Your task to perform on an android device: Is it going to rain today? Image 0: 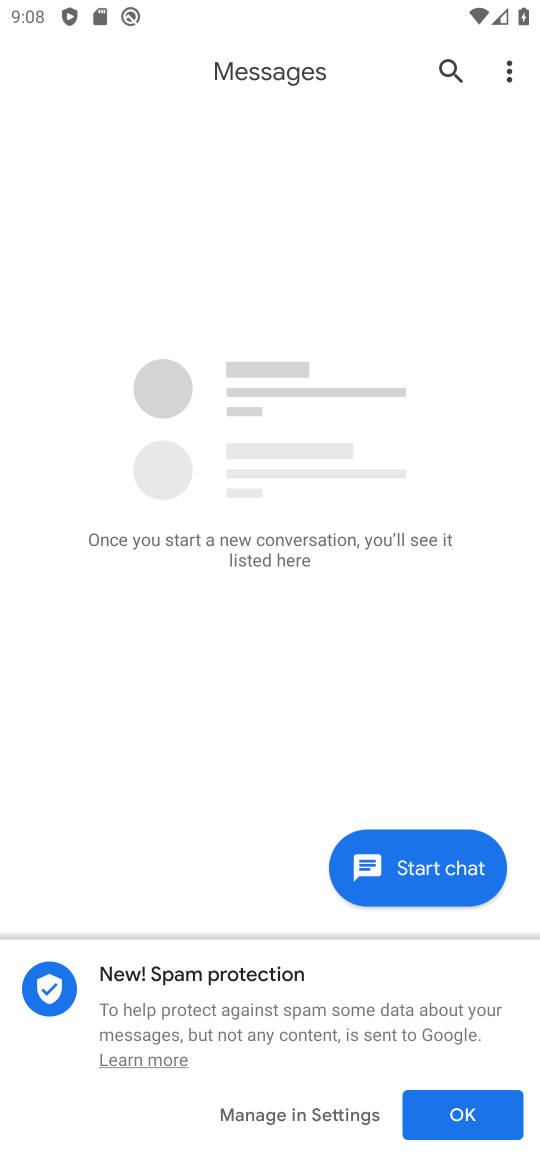
Step 0: press home button
Your task to perform on an android device: Is it going to rain today? Image 1: 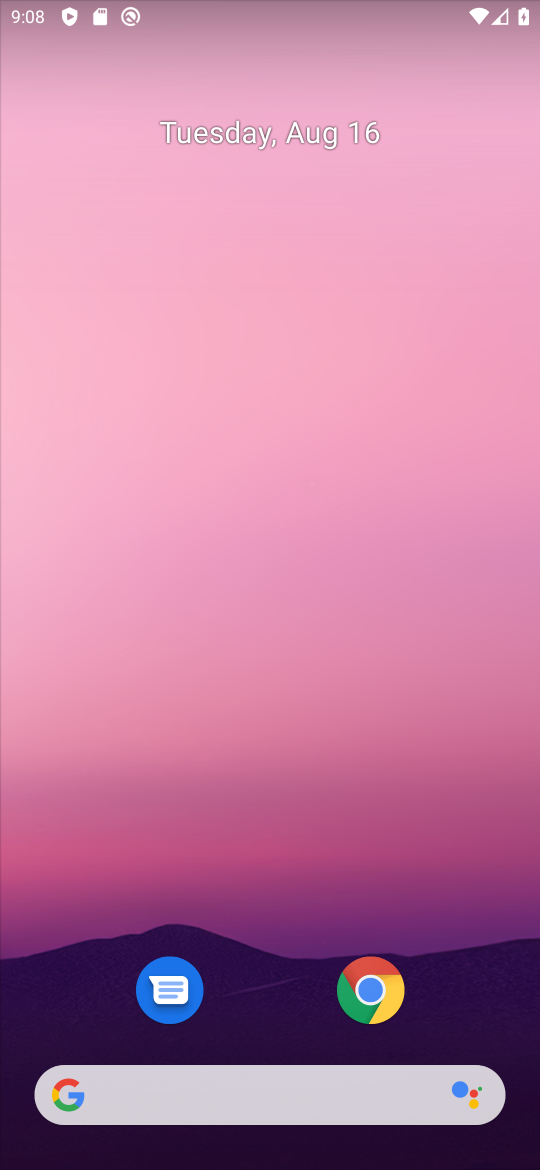
Step 1: click (255, 1094)
Your task to perform on an android device: Is it going to rain today? Image 2: 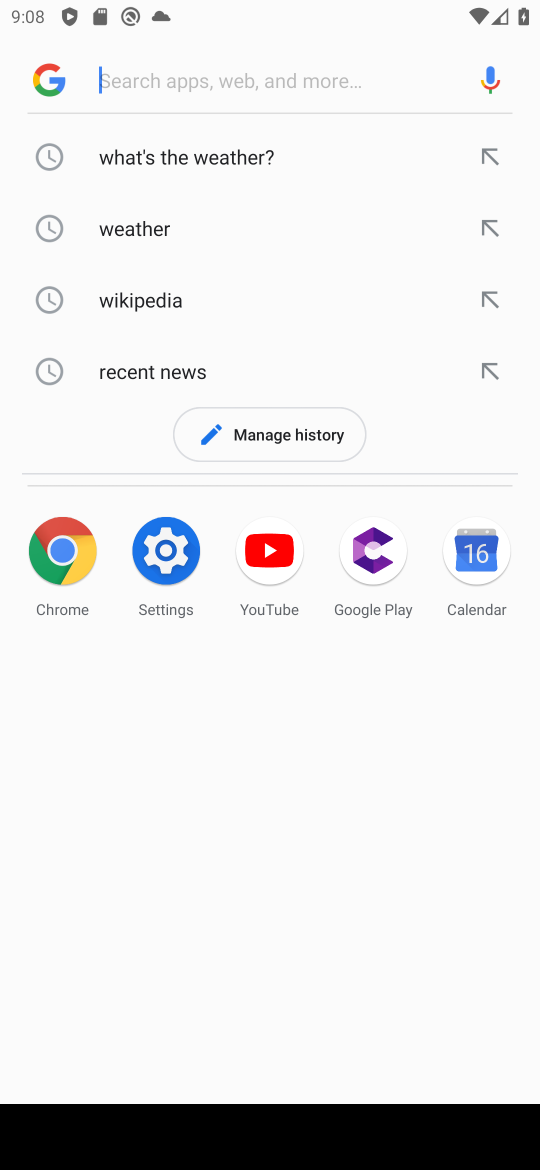
Step 2: click (199, 222)
Your task to perform on an android device: Is it going to rain today? Image 3: 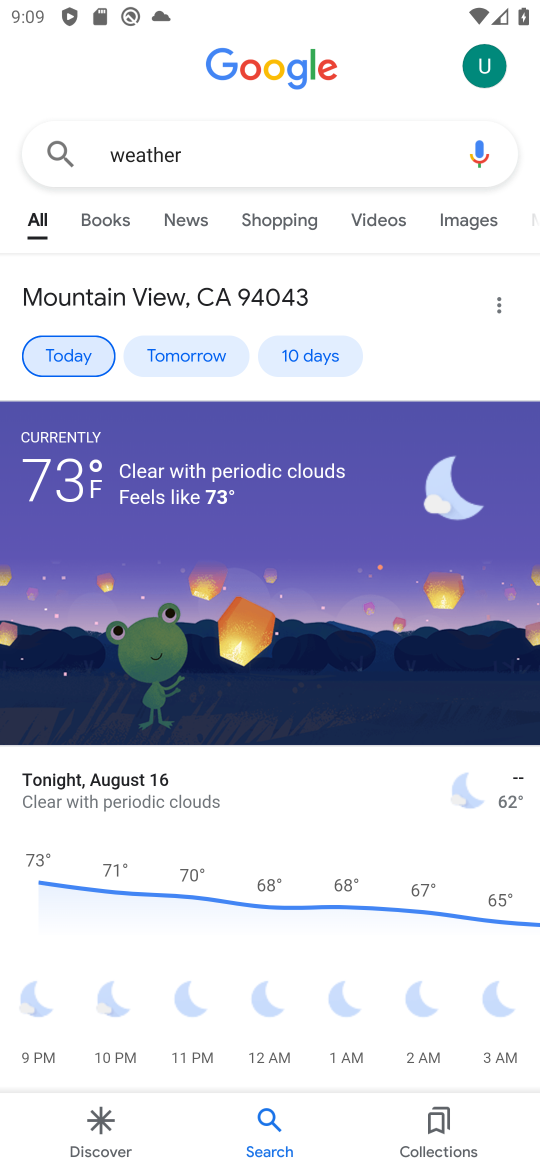
Step 3: task complete